Your task to perform on an android device: move a message to another label in the gmail app Image 0: 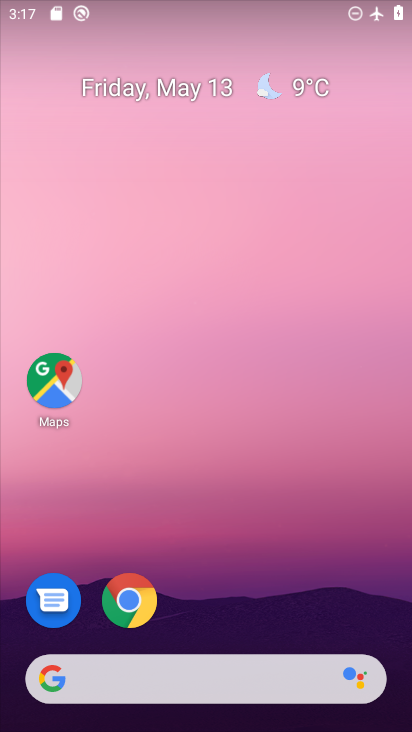
Step 0: drag from (219, 657) to (183, 360)
Your task to perform on an android device: move a message to another label in the gmail app Image 1: 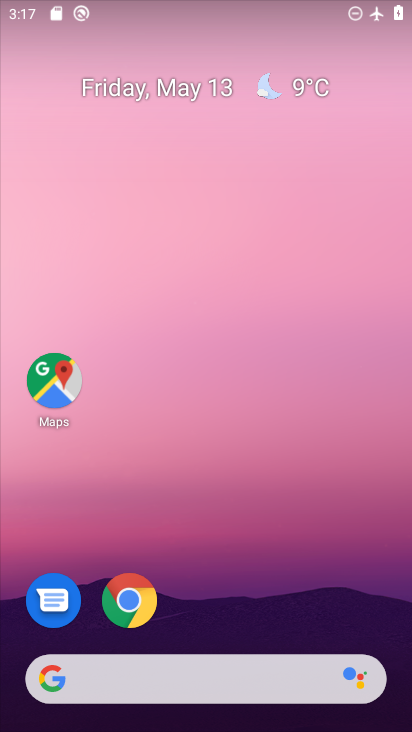
Step 1: drag from (277, 644) to (266, 231)
Your task to perform on an android device: move a message to another label in the gmail app Image 2: 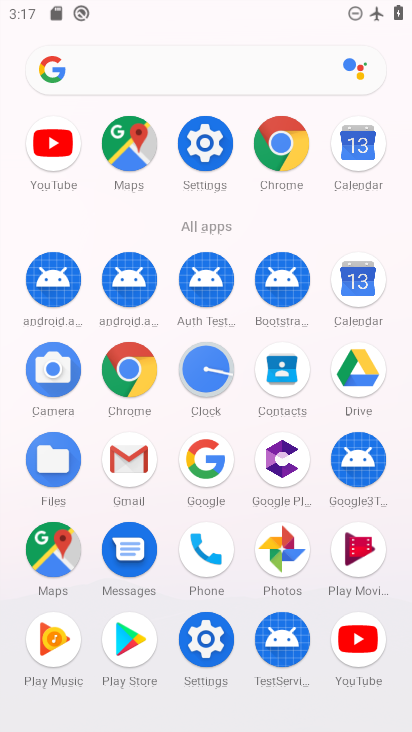
Step 2: click (138, 456)
Your task to perform on an android device: move a message to another label in the gmail app Image 3: 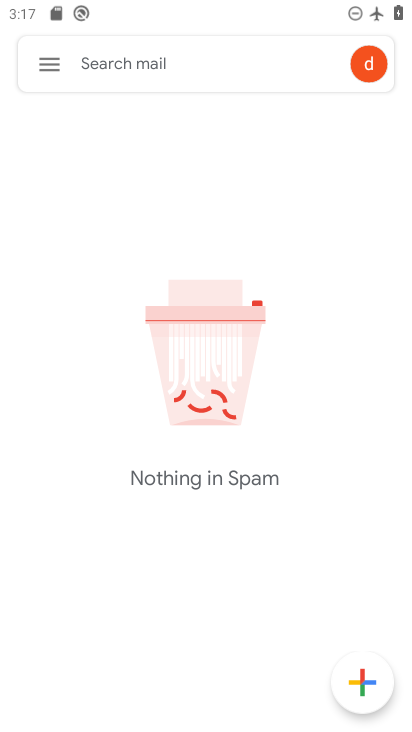
Step 3: click (57, 60)
Your task to perform on an android device: move a message to another label in the gmail app Image 4: 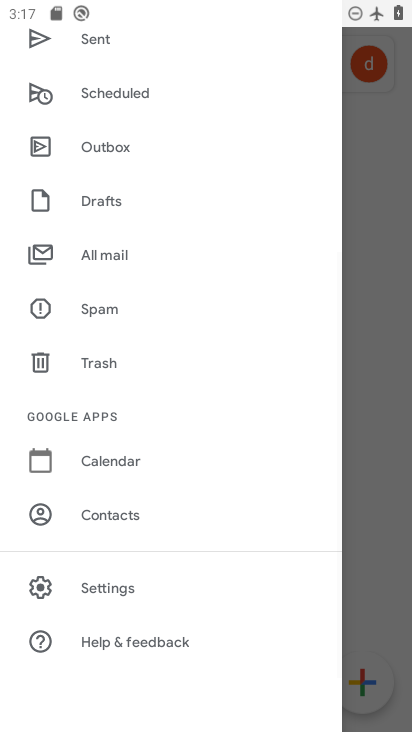
Step 4: drag from (135, 82) to (170, 548)
Your task to perform on an android device: move a message to another label in the gmail app Image 5: 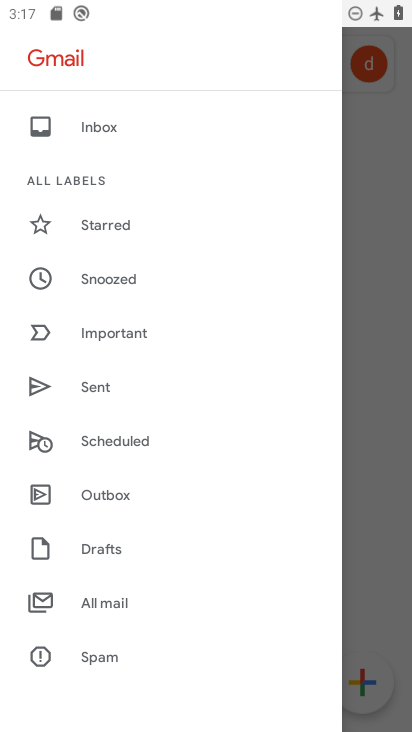
Step 5: click (100, 126)
Your task to perform on an android device: move a message to another label in the gmail app Image 6: 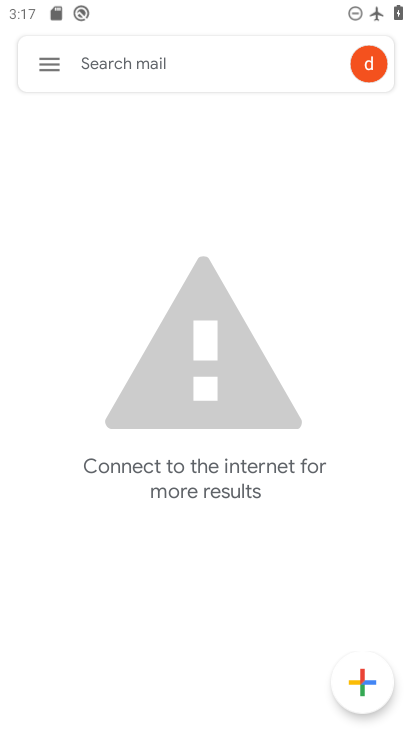
Step 6: task complete